Your task to perform on an android device: Do I have any events today? Image 0: 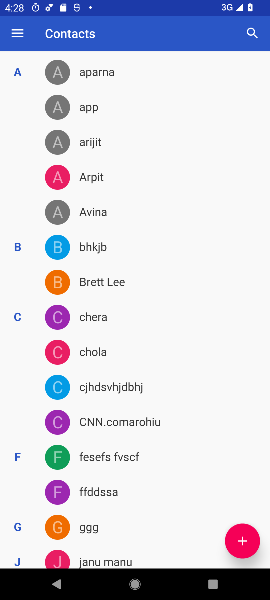
Step 0: press home button
Your task to perform on an android device: Do I have any events today? Image 1: 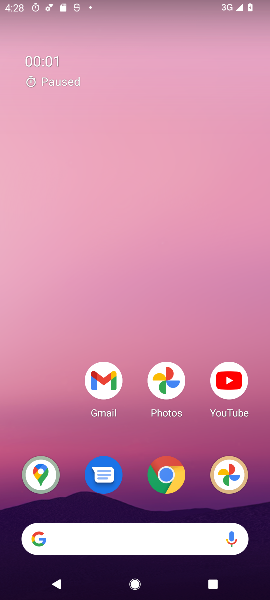
Step 1: click (81, 539)
Your task to perform on an android device: Do I have any events today? Image 2: 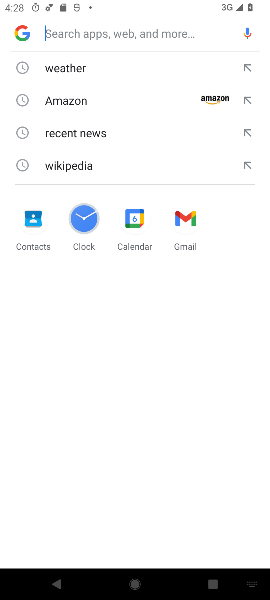
Step 2: type "Do I have any events today?"
Your task to perform on an android device: Do I have any events today? Image 3: 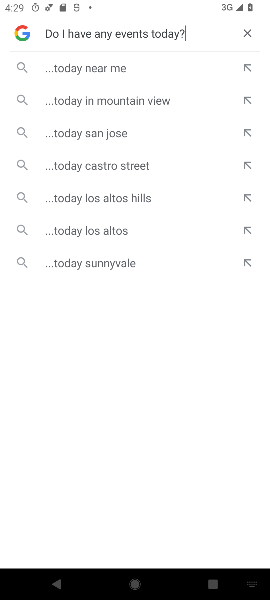
Step 3: type ""
Your task to perform on an android device: Do I have any events today? Image 4: 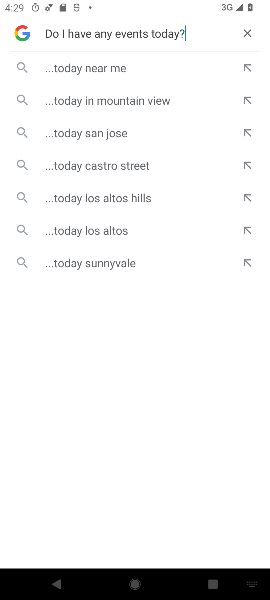
Step 4: type ""
Your task to perform on an android device: Do I have any events today? Image 5: 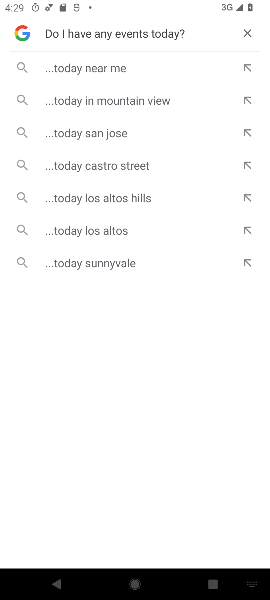
Step 5: type ""
Your task to perform on an android device: Do I have any events today? Image 6: 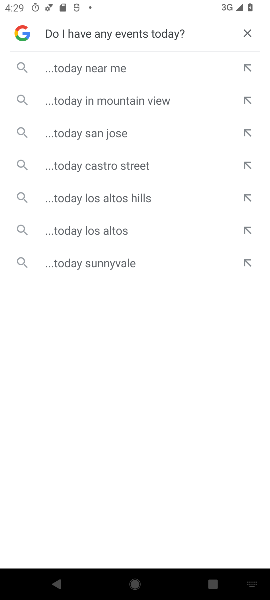
Step 6: task complete